Your task to perform on an android device: Go to Google Image 0: 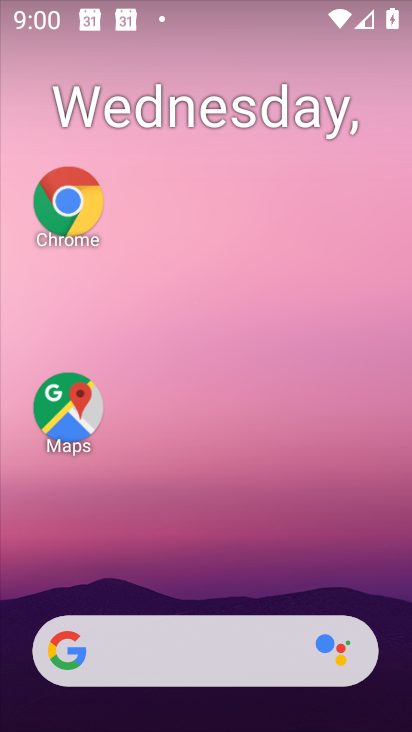
Step 0: drag from (220, 573) to (185, 34)
Your task to perform on an android device: Go to Google Image 1: 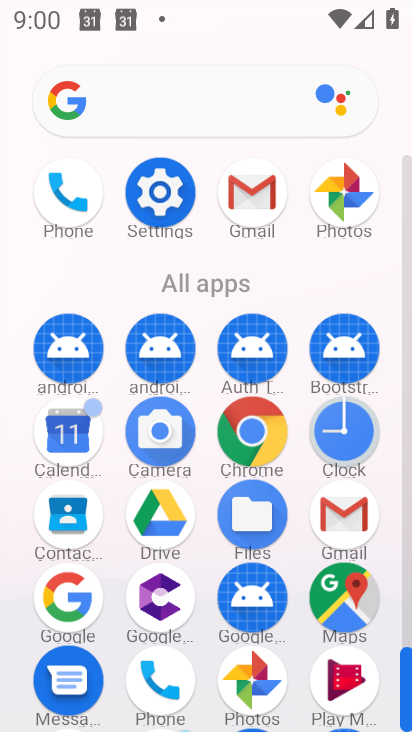
Step 1: click (74, 604)
Your task to perform on an android device: Go to Google Image 2: 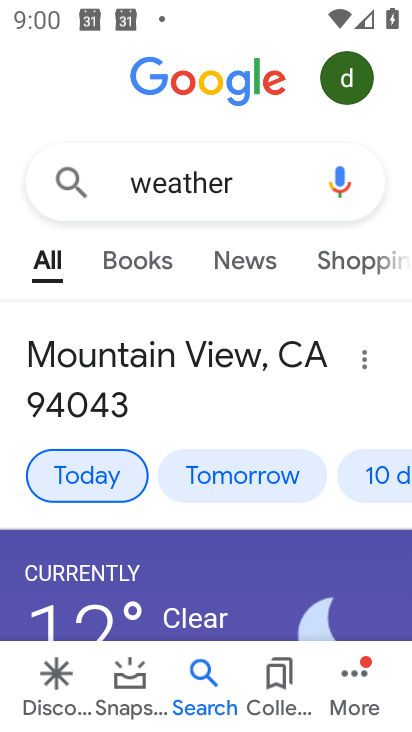
Step 2: task complete